Your task to perform on an android device: turn on location history Image 0: 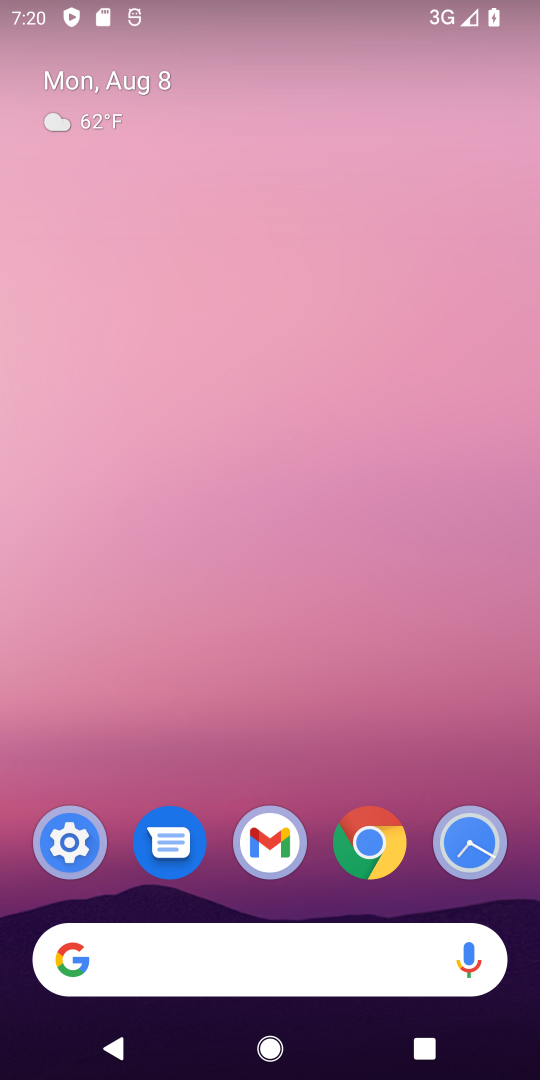
Step 0: drag from (313, 909) to (415, 26)
Your task to perform on an android device: turn on location history Image 1: 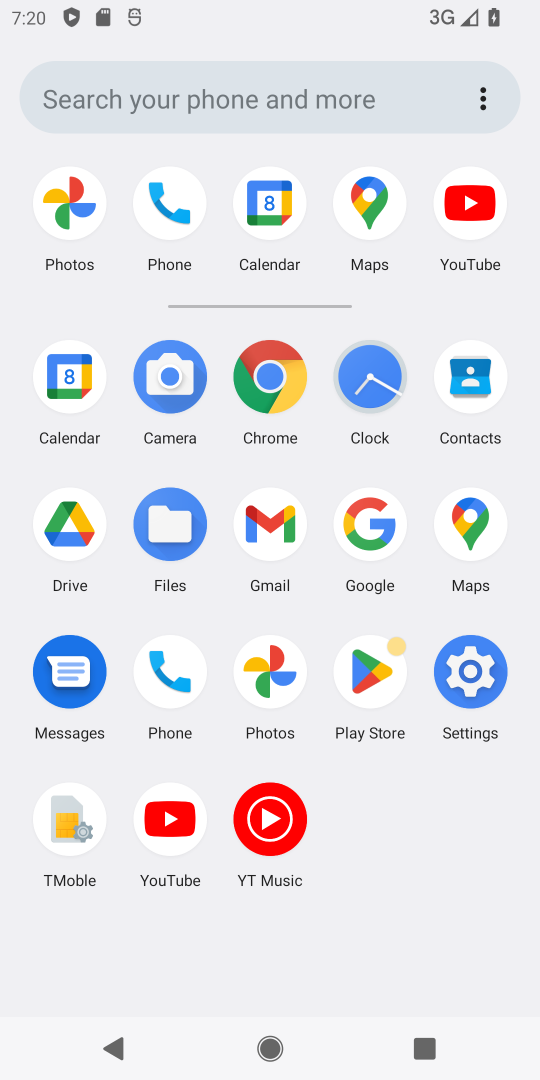
Step 1: click (471, 661)
Your task to perform on an android device: turn on location history Image 2: 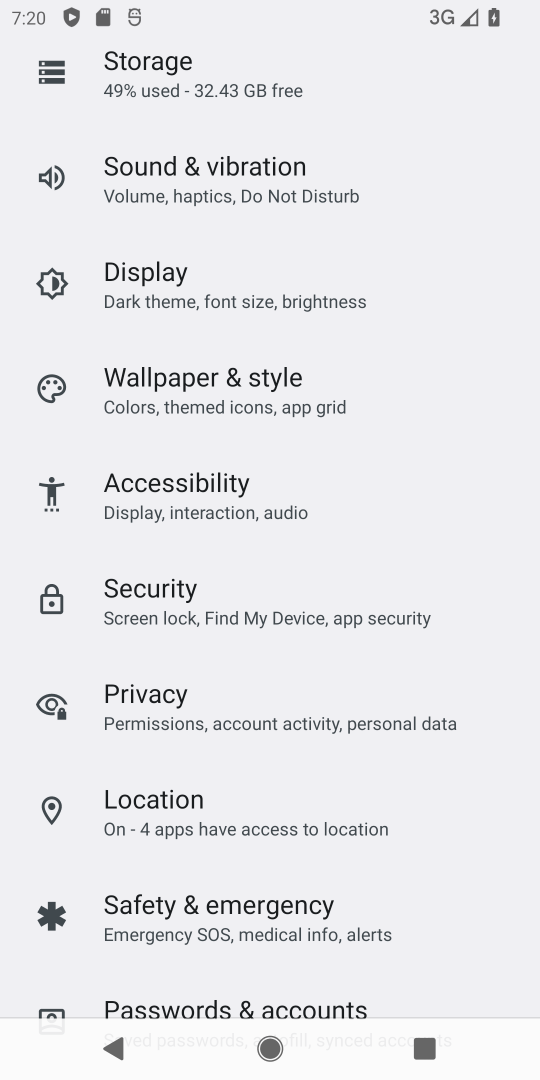
Step 2: click (199, 780)
Your task to perform on an android device: turn on location history Image 3: 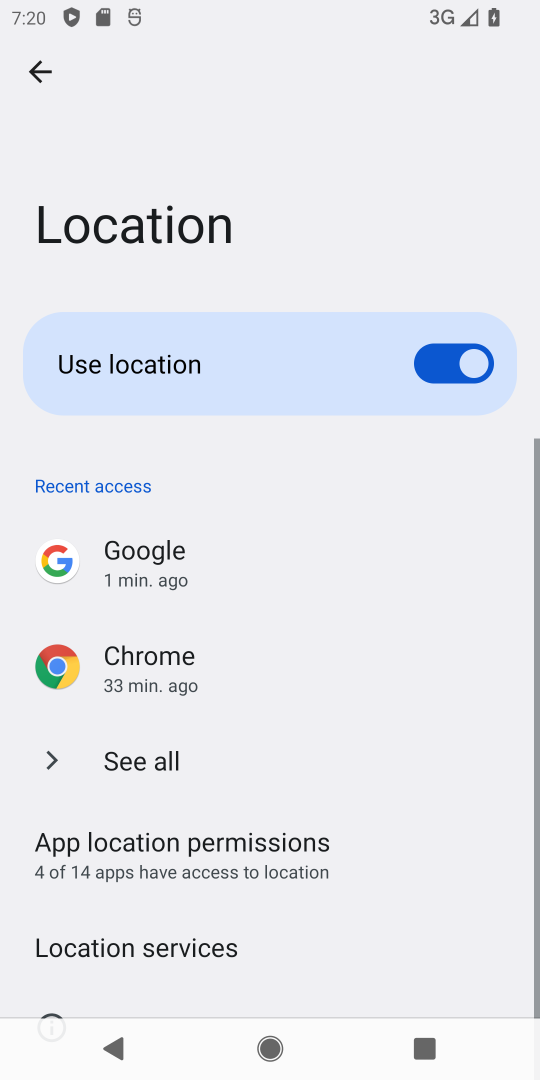
Step 3: drag from (213, 891) to (89, 45)
Your task to perform on an android device: turn on location history Image 4: 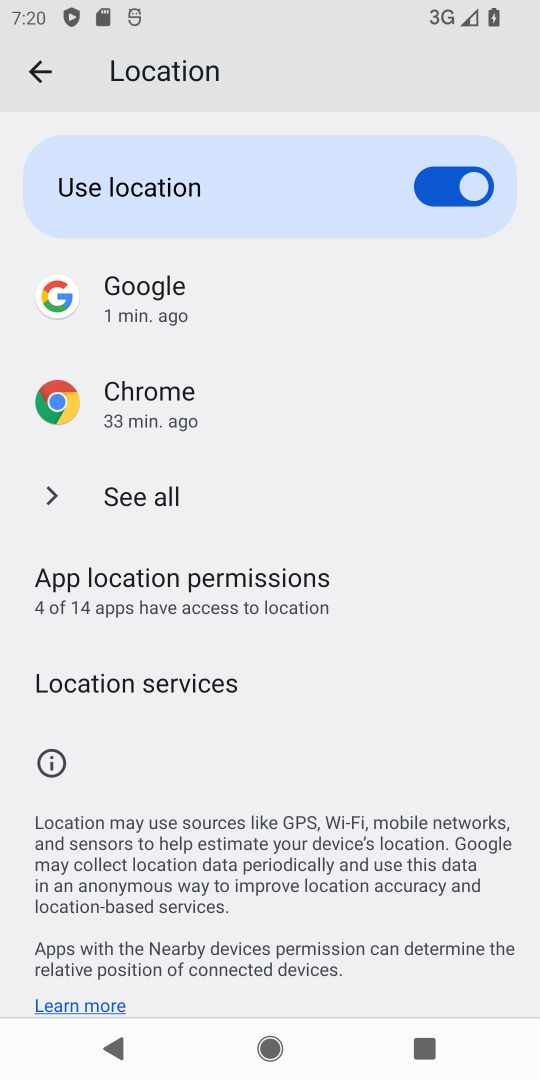
Step 4: click (85, 691)
Your task to perform on an android device: turn on location history Image 5: 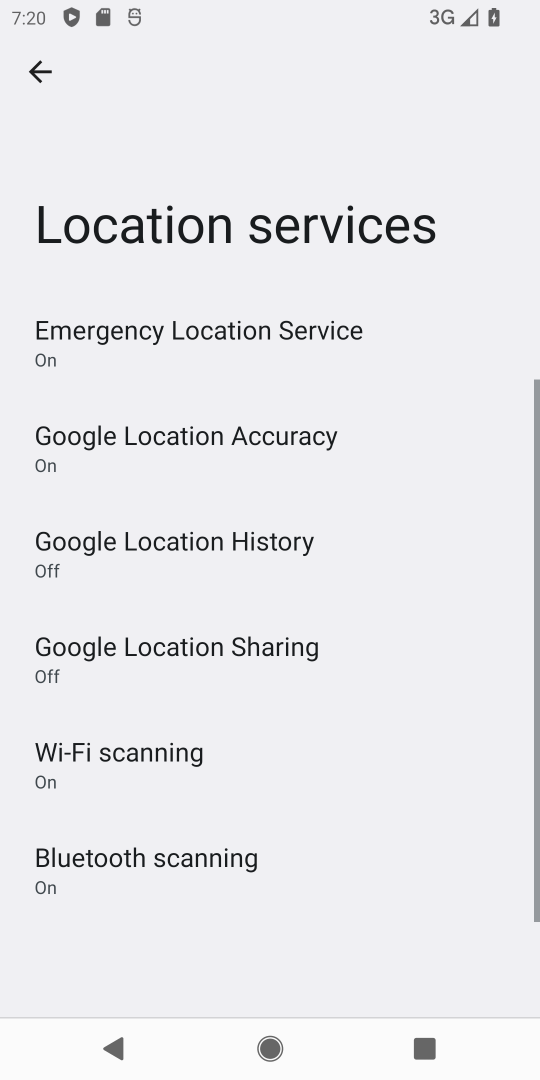
Step 5: click (135, 535)
Your task to perform on an android device: turn on location history Image 6: 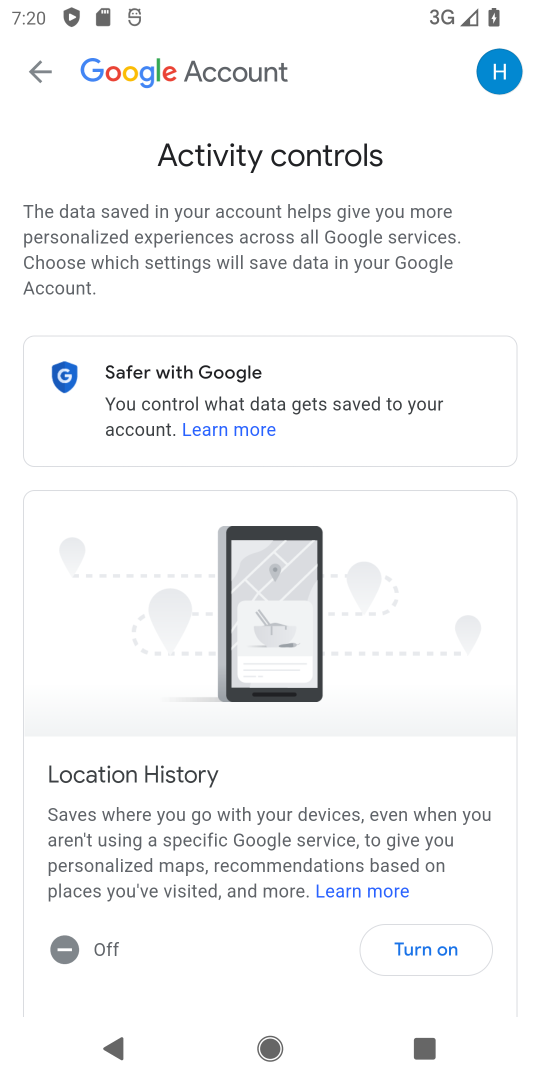
Step 6: click (455, 945)
Your task to perform on an android device: turn on location history Image 7: 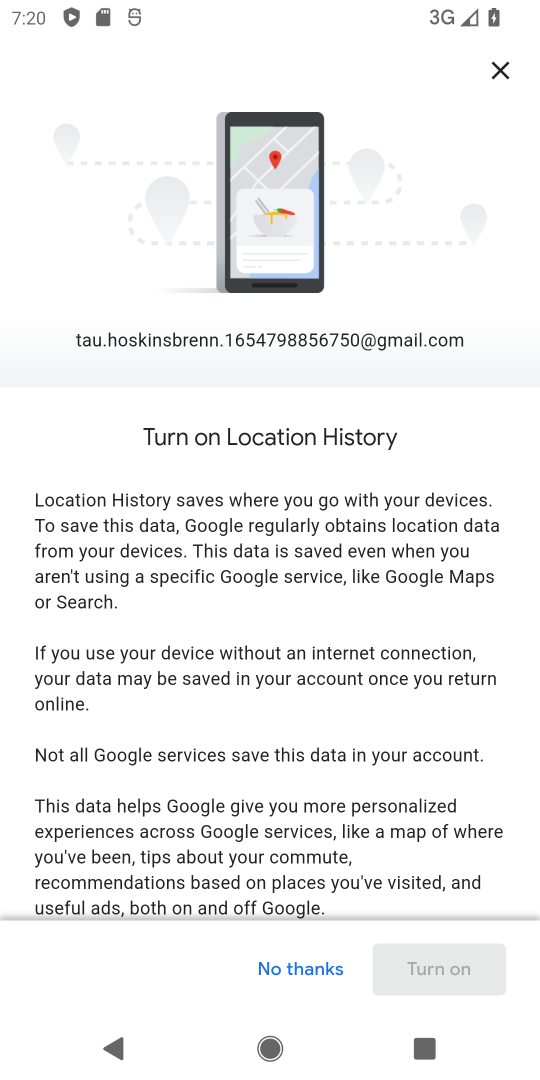
Step 7: drag from (377, 893) to (289, 104)
Your task to perform on an android device: turn on location history Image 8: 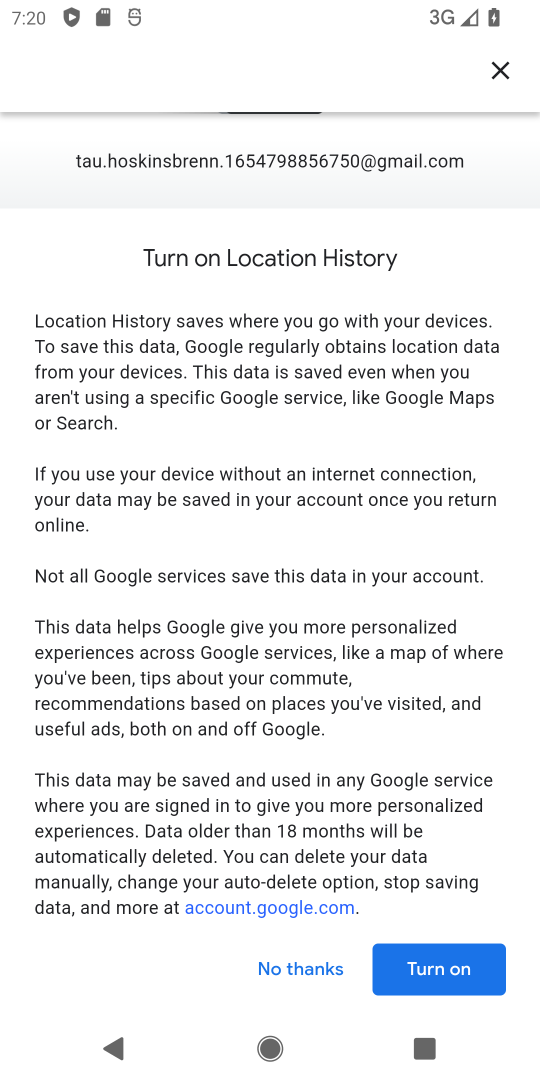
Step 8: click (387, 931)
Your task to perform on an android device: turn on location history Image 9: 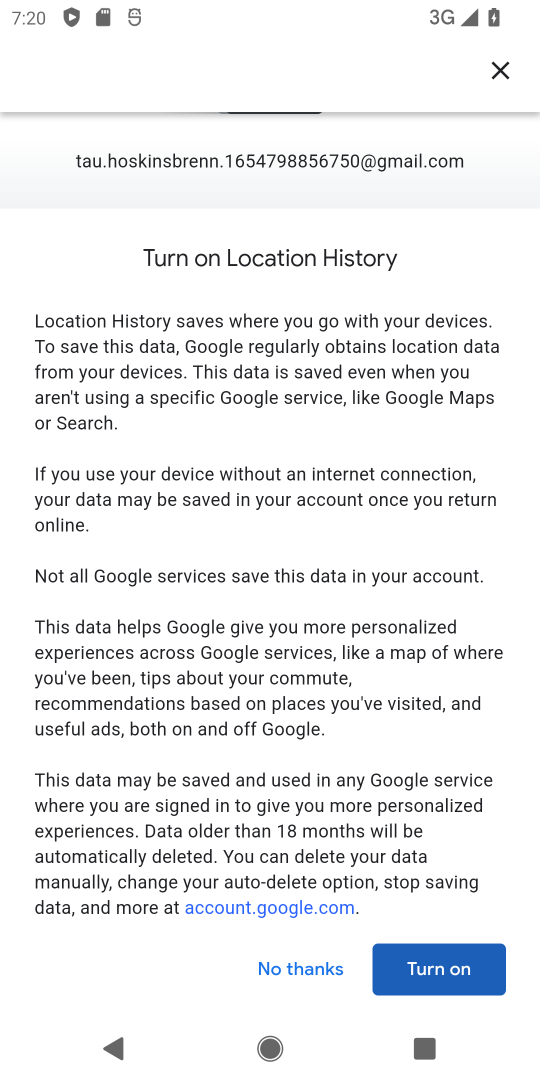
Step 9: click (447, 982)
Your task to perform on an android device: turn on location history Image 10: 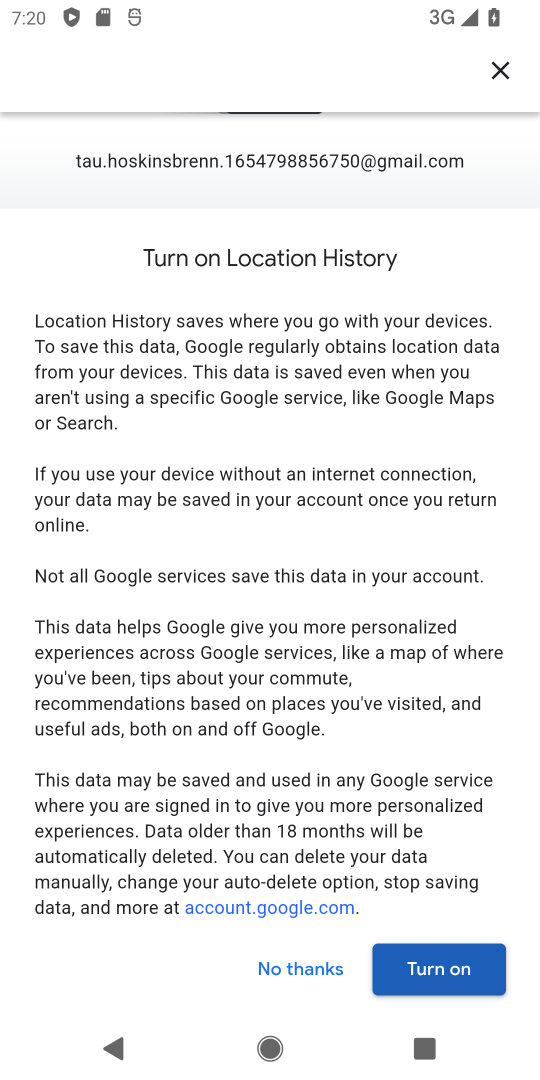
Step 10: task complete